Your task to perform on an android device: Go to eBay Image 0: 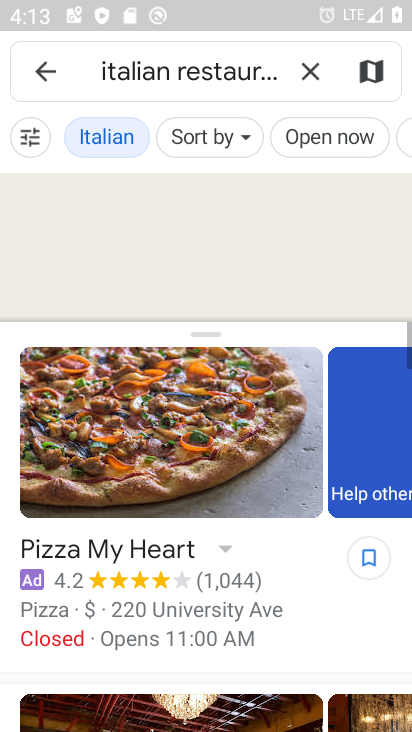
Step 0: press home button
Your task to perform on an android device: Go to eBay Image 1: 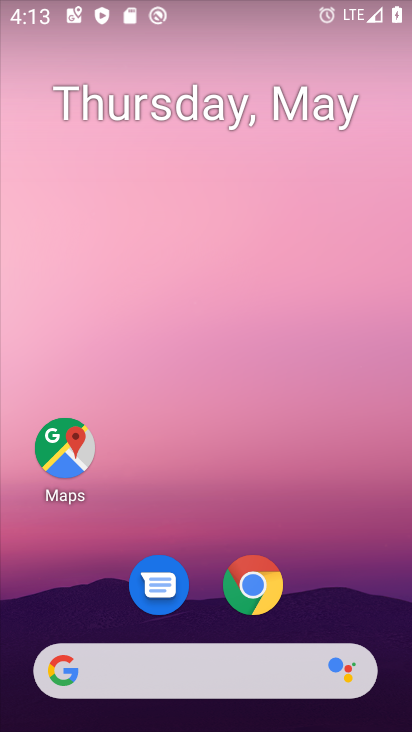
Step 1: click (194, 677)
Your task to perform on an android device: Go to eBay Image 2: 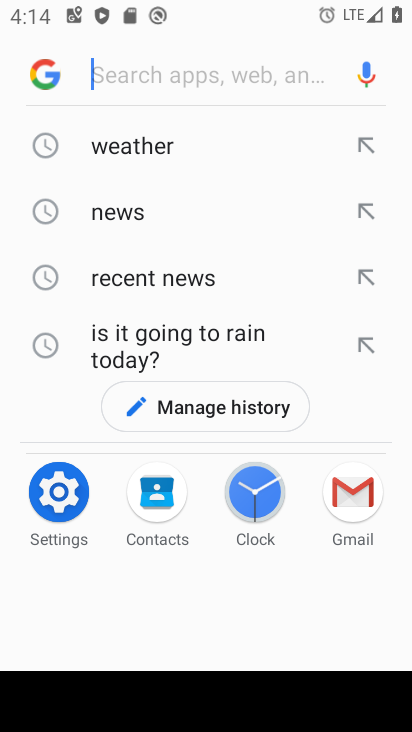
Step 2: type "ebay"
Your task to perform on an android device: Go to eBay Image 3: 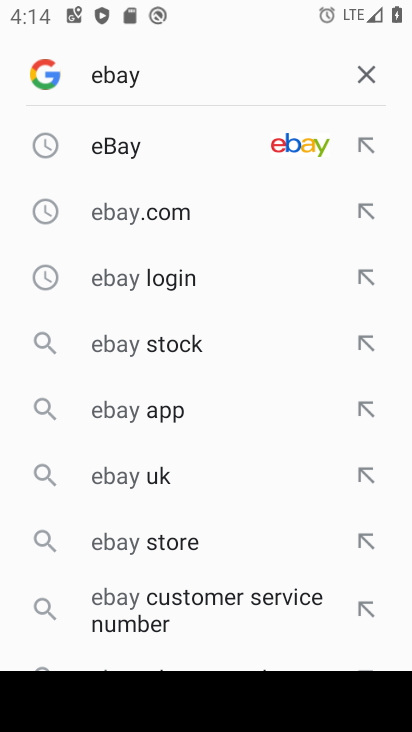
Step 3: click (116, 144)
Your task to perform on an android device: Go to eBay Image 4: 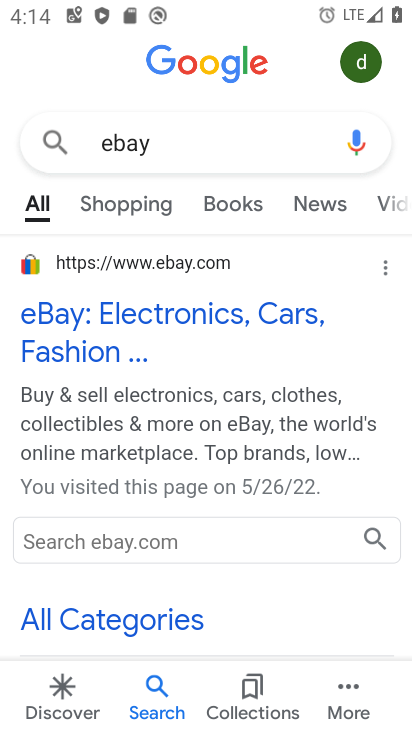
Step 4: click (82, 305)
Your task to perform on an android device: Go to eBay Image 5: 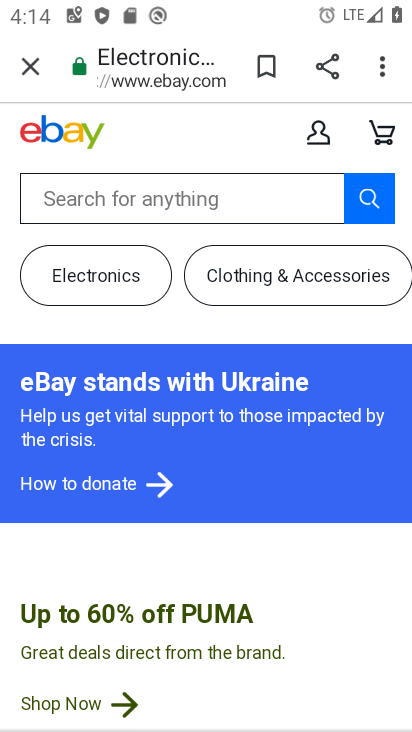
Step 5: task complete